Your task to perform on an android device: Go to display settings Image 0: 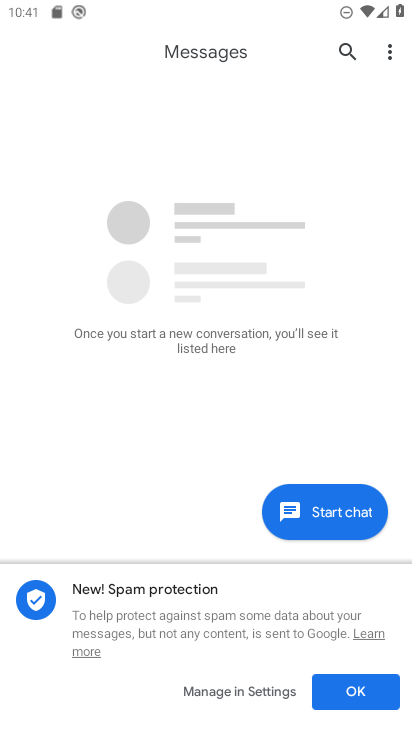
Step 0: press home button
Your task to perform on an android device: Go to display settings Image 1: 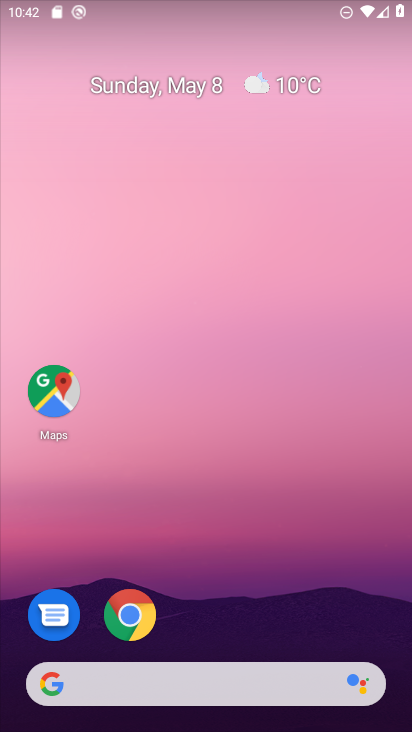
Step 1: drag from (268, 624) to (331, 145)
Your task to perform on an android device: Go to display settings Image 2: 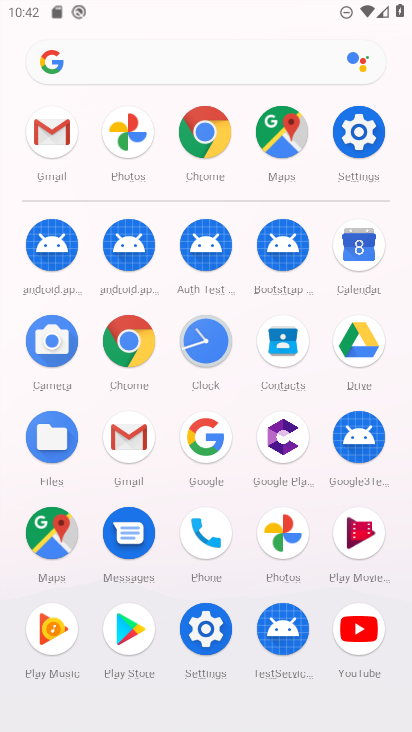
Step 2: click (370, 126)
Your task to perform on an android device: Go to display settings Image 3: 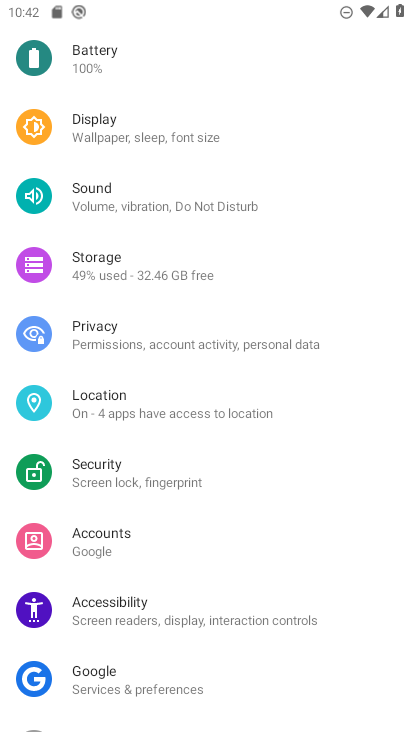
Step 3: click (127, 143)
Your task to perform on an android device: Go to display settings Image 4: 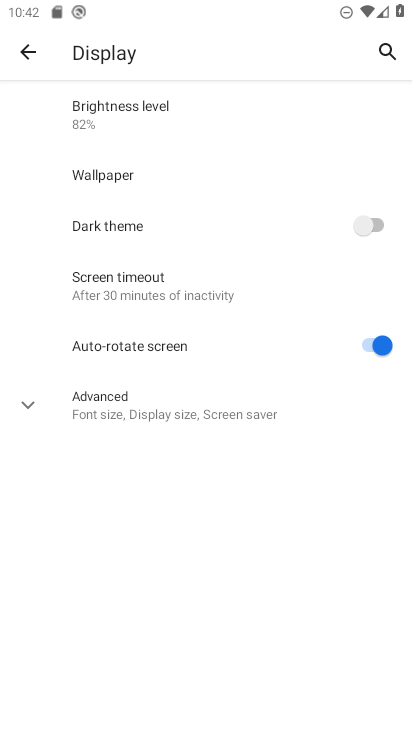
Step 4: task complete